Your task to perform on an android device: Open Amazon Image 0: 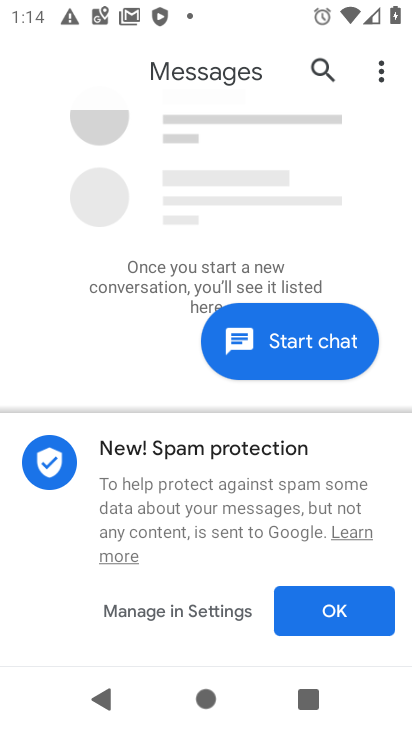
Step 0: press back button
Your task to perform on an android device: Open Amazon Image 1: 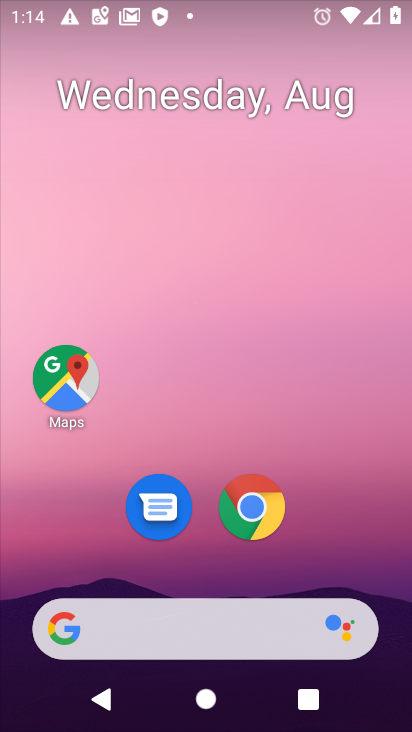
Step 1: click (219, 496)
Your task to perform on an android device: Open Amazon Image 2: 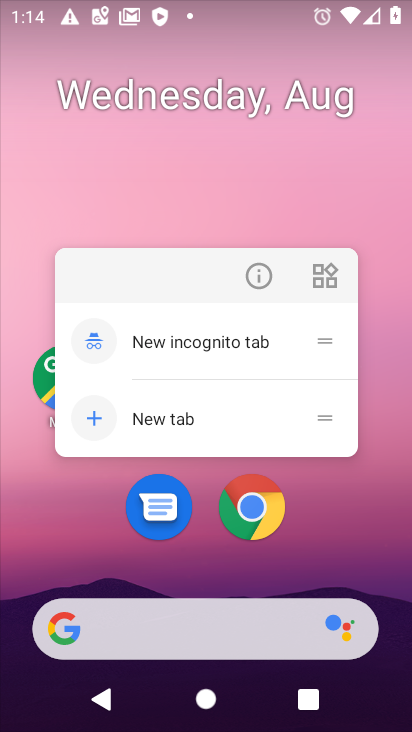
Step 2: click (239, 509)
Your task to perform on an android device: Open Amazon Image 3: 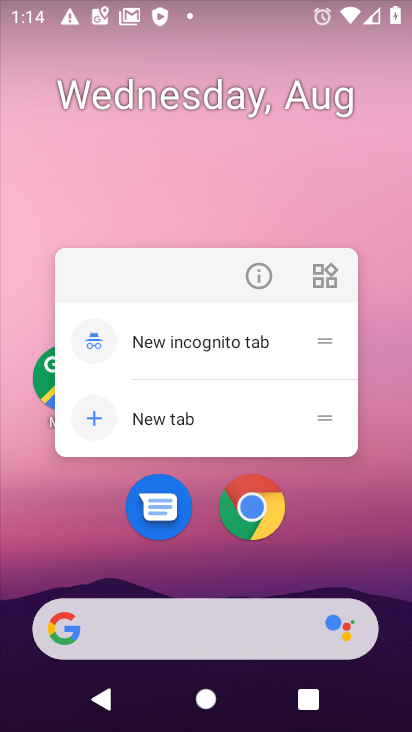
Step 3: click (239, 499)
Your task to perform on an android device: Open Amazon Image 4: 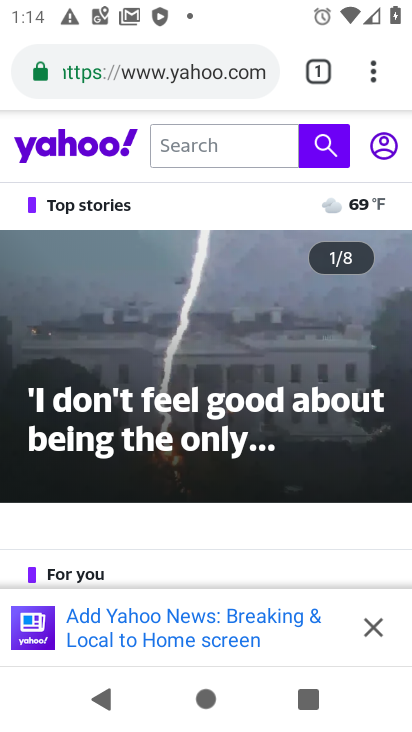
Step 4: click (318, 79)
Your task to perform on an android device: Open Amazon Image 5: 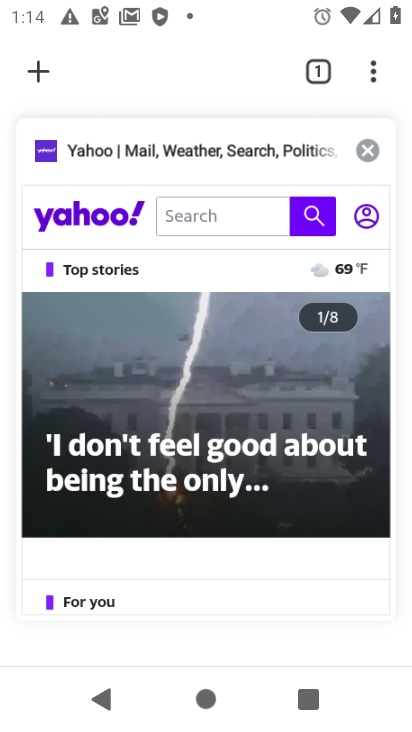
Step 5: click (34, 70)
Your task to perform on an android device: Open Amazon Image 6: 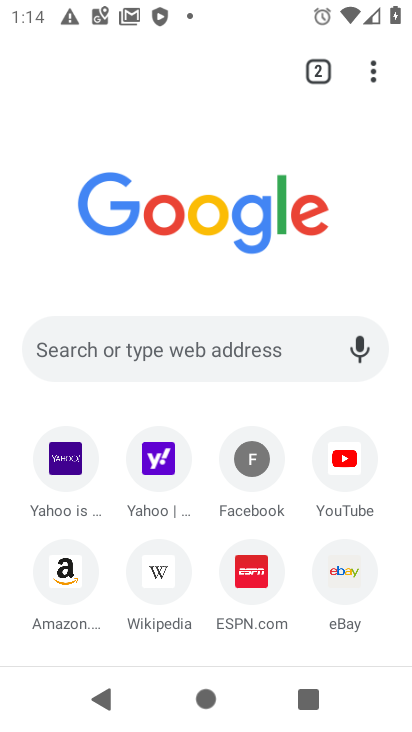
Step 6: click (43, 589)
Your task to perform on an android device: Open Amazon Image 7: 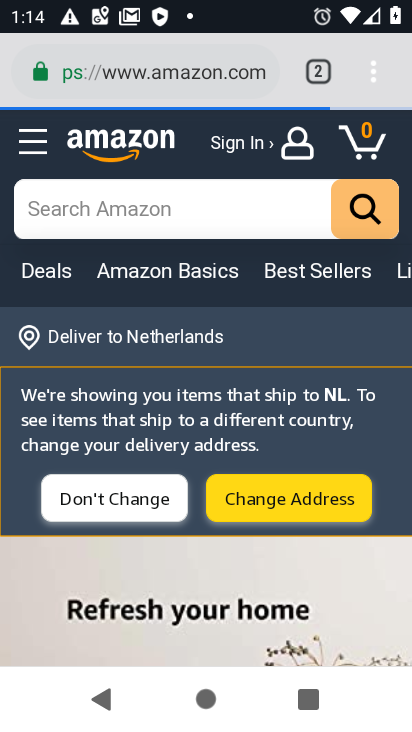
Step 7: task complete